Your task to perform on an android device: add a label to a message in the gmail app Image 0: 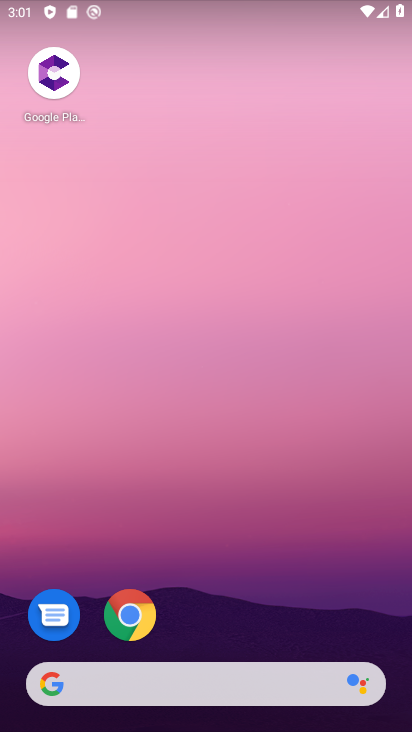
Step 0: drag from (198, 727) to (208, 70)
Your task to perform on an android device: add a label to a message in the gmail app Image 1: 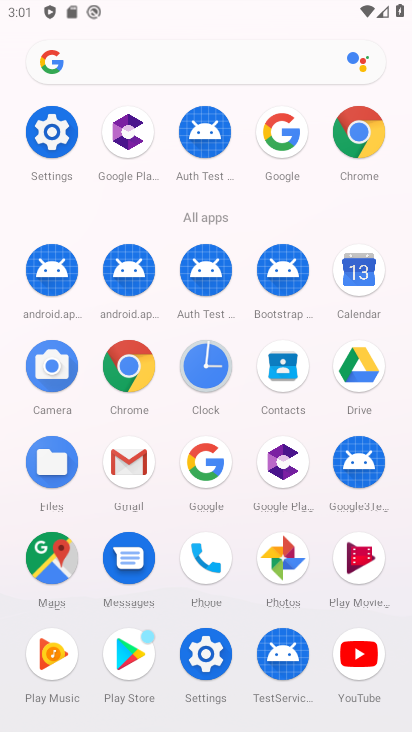
Step 1: click (135, 455)
Your task to perform on an android device: add a label to a message in the gmail app Image 2: 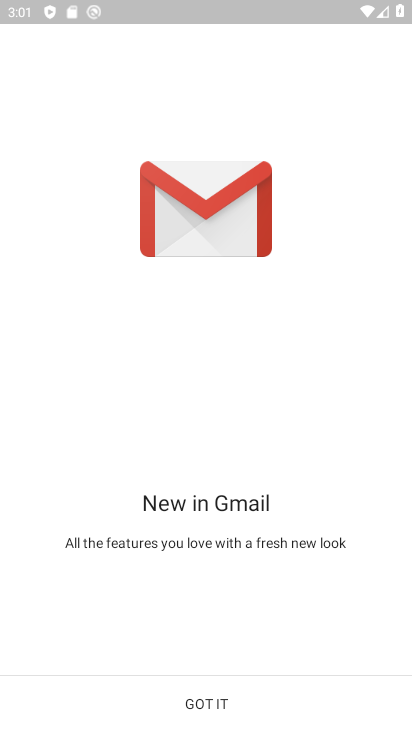
Step 2: click (198, 704)
Your task to perform on an android device: add a label to a message in the gmail app Image 3: 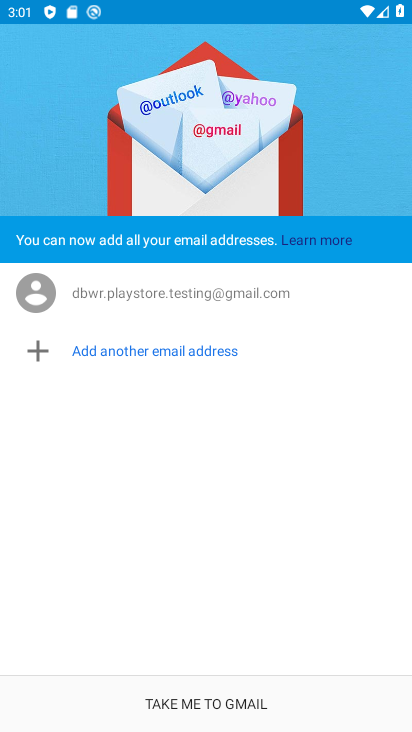
Step 3: click (205, 706)
Your task to perform on an android device: add a label to a message in the gmail app Image 4: 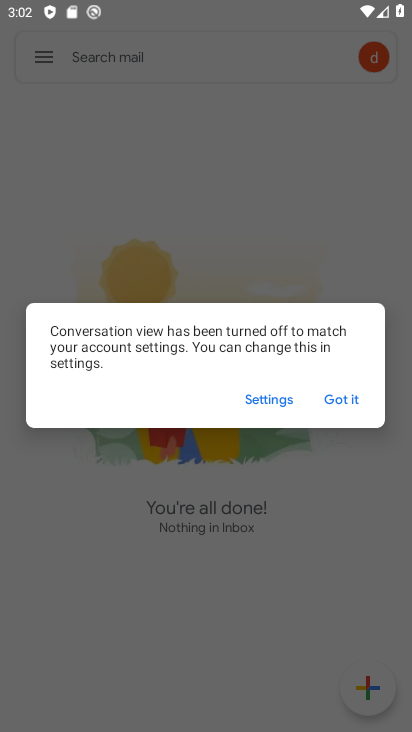
Step 4: click (348, 400)
Your task to perform on an android device: add a label to a message in the gmail app Image 5: 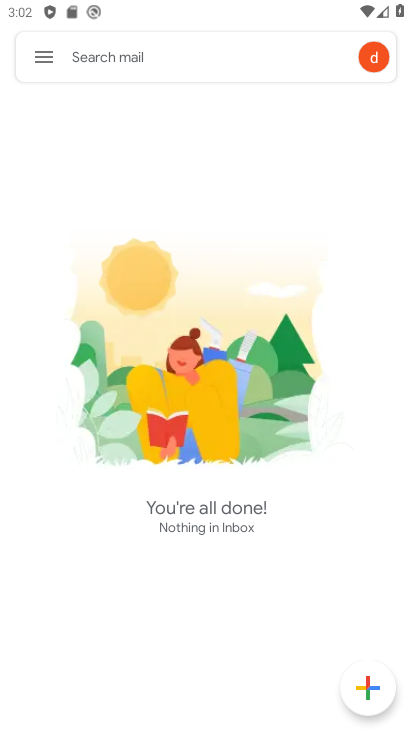
Step 5: task complete